Your task to perform on an android device: turn off improve location accuracy Image 0: 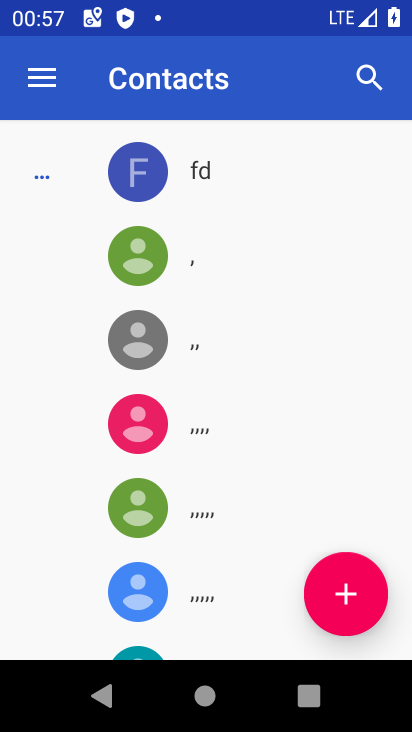
Step 0: press home button
Your task to perform on an android device: turn off improve location accuracy Image 1: 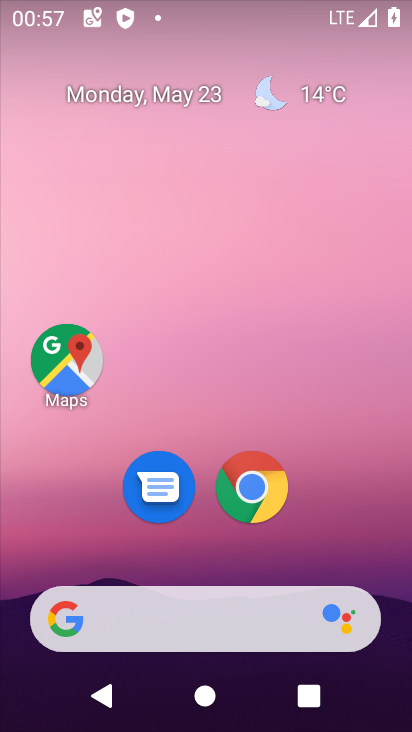
Step 1: drag from (390, 577) to (314, 22)
Your task to perform on an android device: turn off improve location accuracy Image 2: 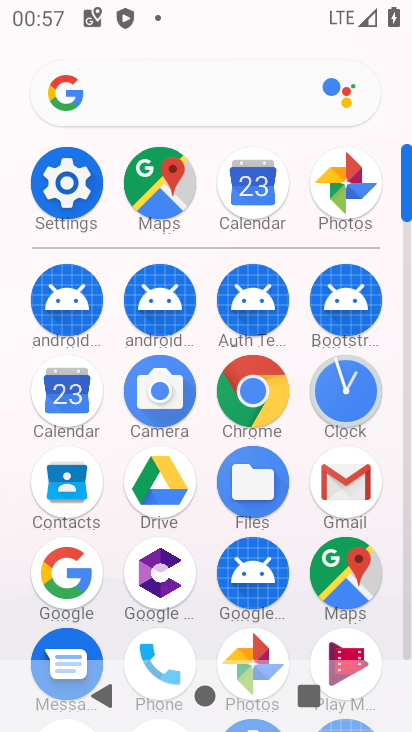
Step 2: click (407, 642)
Your task to perform on an android device: turn off improve location accuracy Image 3: 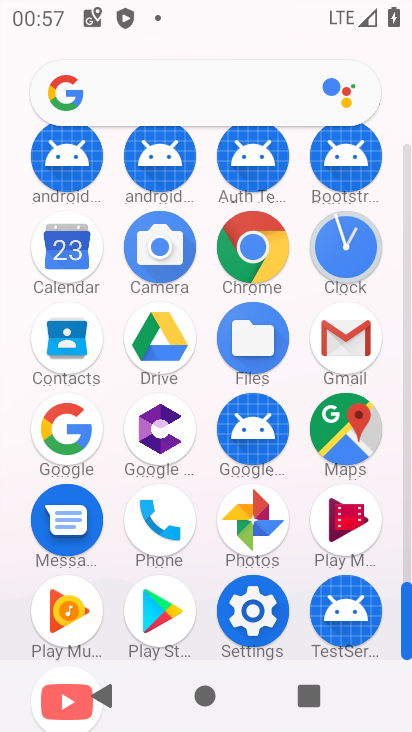
Step 3: click (254, 612)
Your task to perform on an android device: turn off improve location accuracy Image 4: 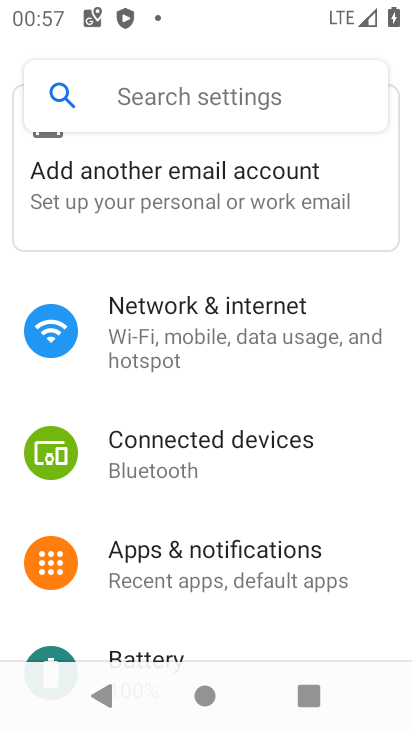
Step 4: drag from (299, 616) to (266, 157)
Your task to perform on an android device: turn off improve location accuracy Image 5: 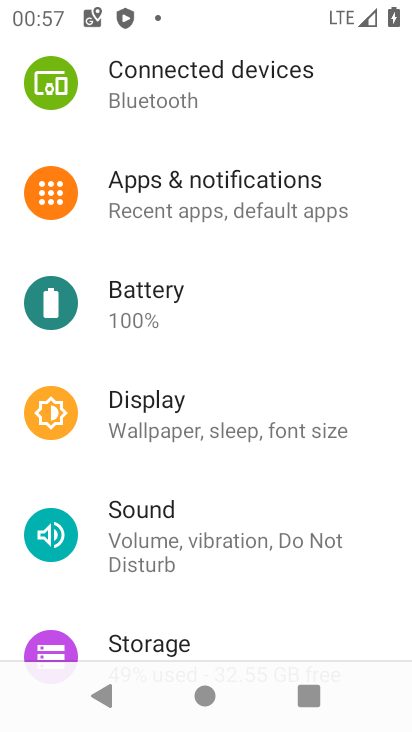
Step 5: drag from (163, 546) to (239, 111)
Your task to perform on an android device: turn off improve location accuracy Image 6: 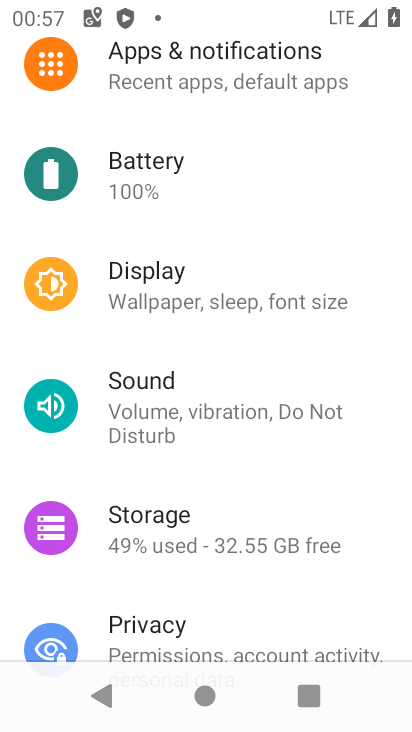
Step 6: drag from (255, 635) to (214, 115)
Your task to perform on an android device: turn off improve location accuracy Image 7: 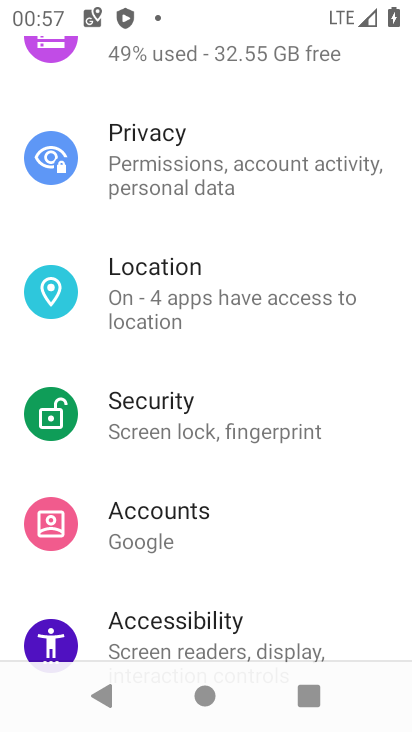
Step 7: click (160, 306)
Your task to perform on an android device: turn off improve location accuracy Image 8: 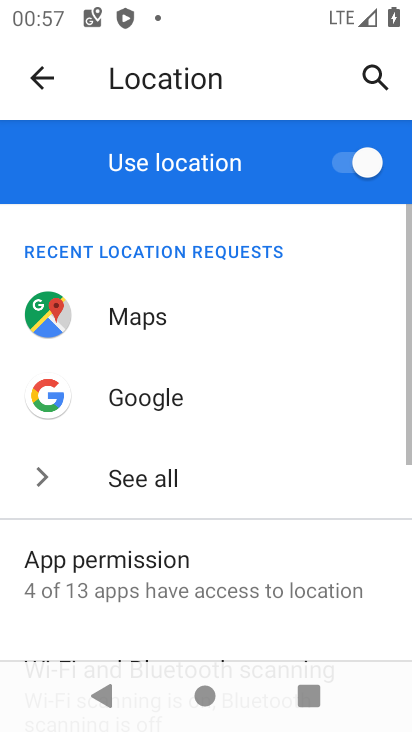
Step 8: drag from (314, 593) to (295, 158)
Your task to perform on an android device: turn off improve location accuracy Image 9: 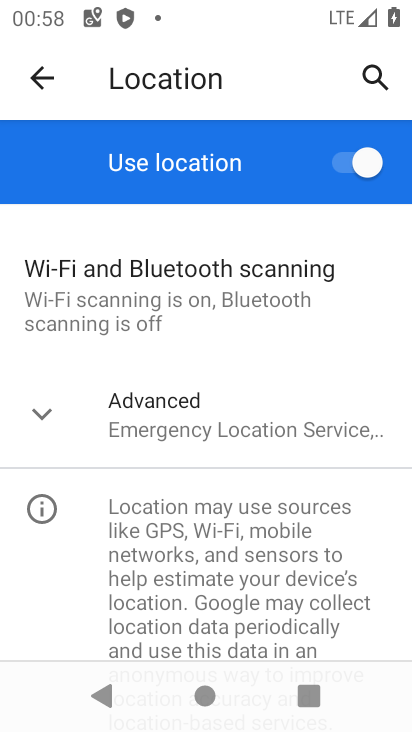
Step 9: click (50, 408)
Your task to perform on an android device: turn off improve location accuracy Image 10: 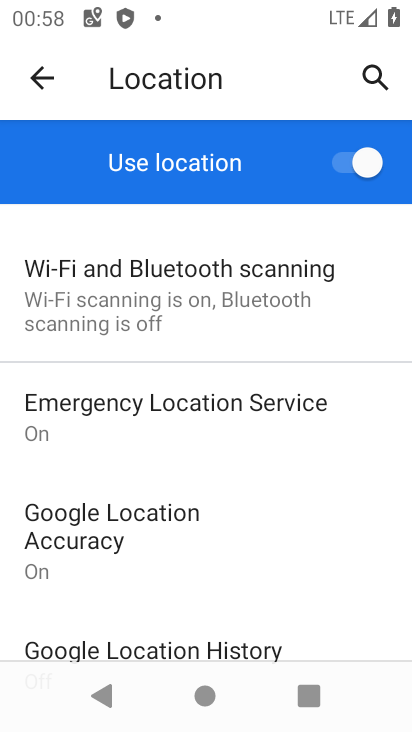
Step 10: drag from (235, 595) to (269, 302)
Your task to perform on an android device: turn off improve location accuracy Image 11: 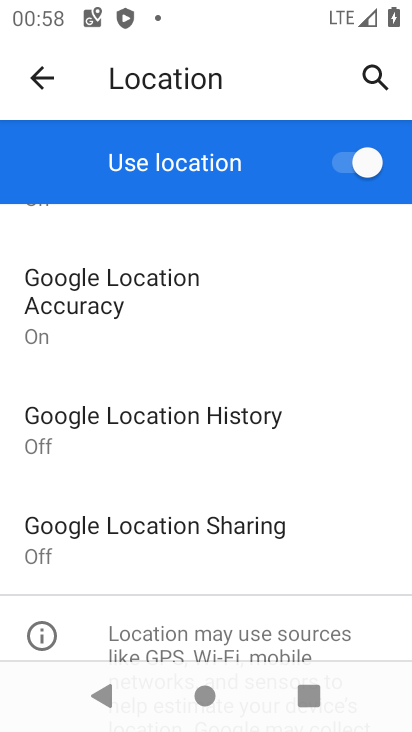
Step 11: click (79, 283)
Your task to perform on an android device: turn off improve location accuracy Image 12: 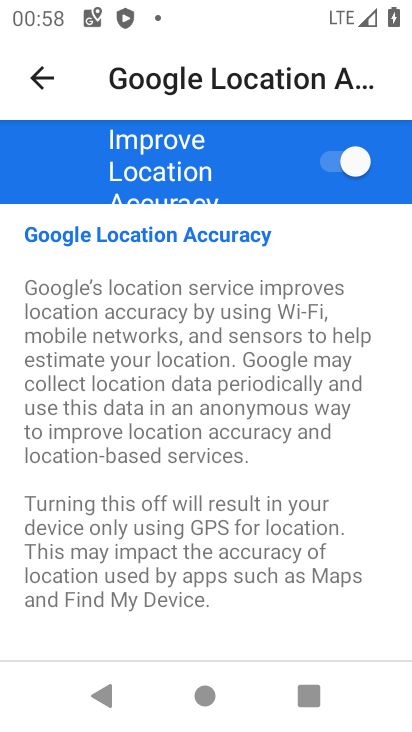
Step 12: click (325, 164)
Your task to perform on an android device: turn off improve location accuracy Image 13: 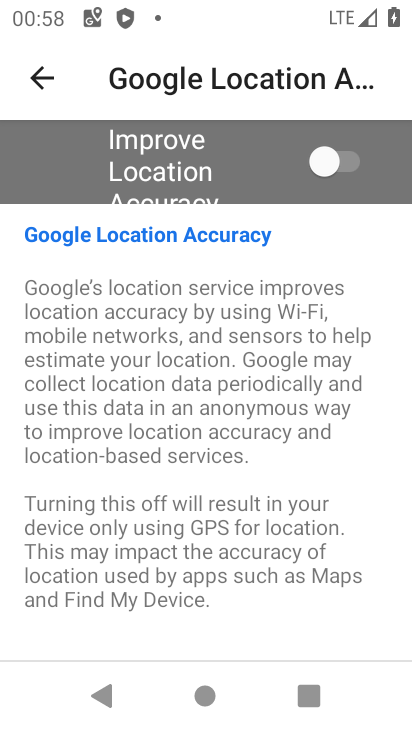
Step 13: task complete